Your task to perform on an android device: turn on notifications settings in the gmail app Image 0: 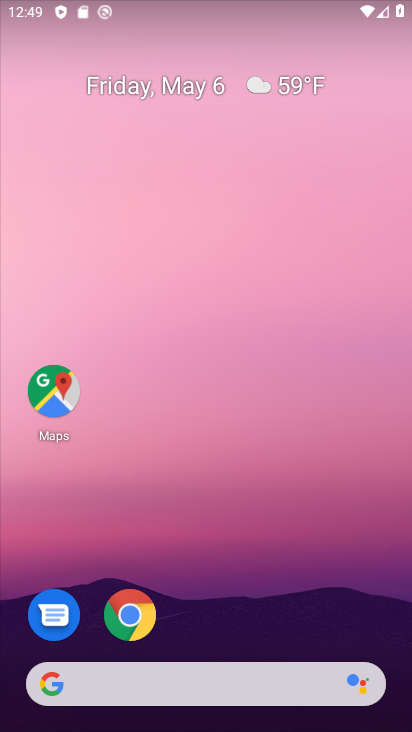
Step 0: drag from (314, 532) to (273, 3)
Your task to perform on an android device: turn on notifications settings in the gmail app Image 1: 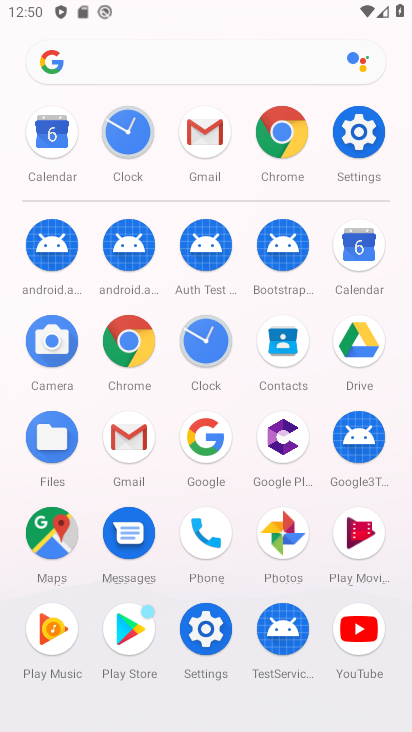
Step 1: click (205, 134)
Your task to perform on an android device: turn on notifications settings in the gmail app Image 2: 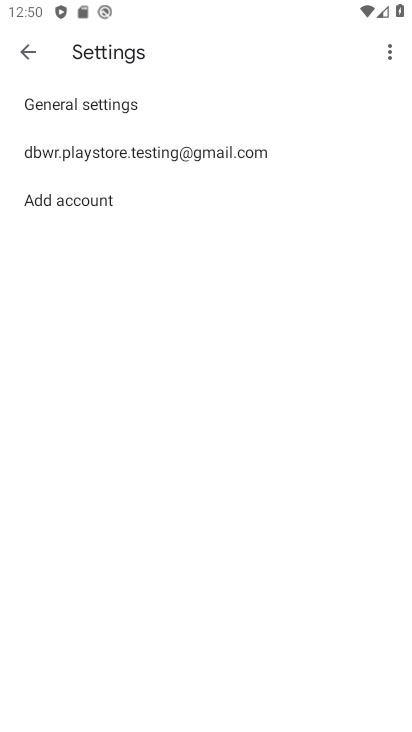
Step 2: click (62, 100)
Your task to perform on an android device: turn on notifications settings in the gmail app Image 3: 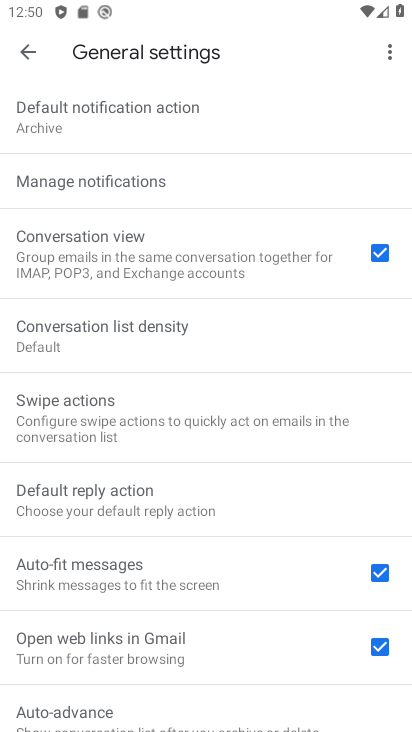
Step 3: click (155, 183)
Your task to perform on an android device: turn on notifications settings in the gmail app Image 4: 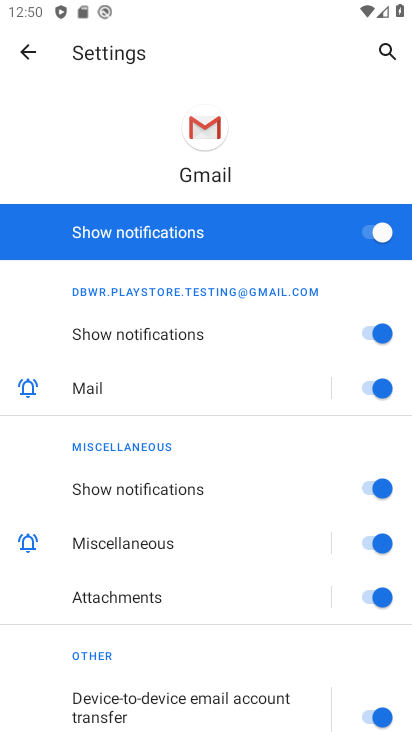
Step 4: task complete